Your task to perform on an android device: change alarm snooze length Image 0: 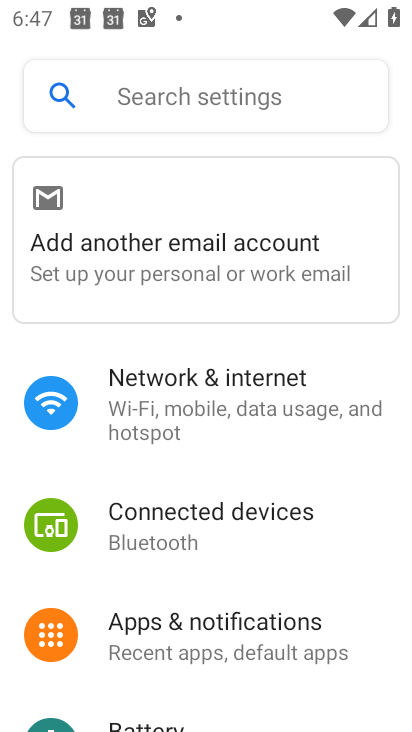
Step 0: press home button
Your task to perform on an android device: change alarm snooze length Image 1: 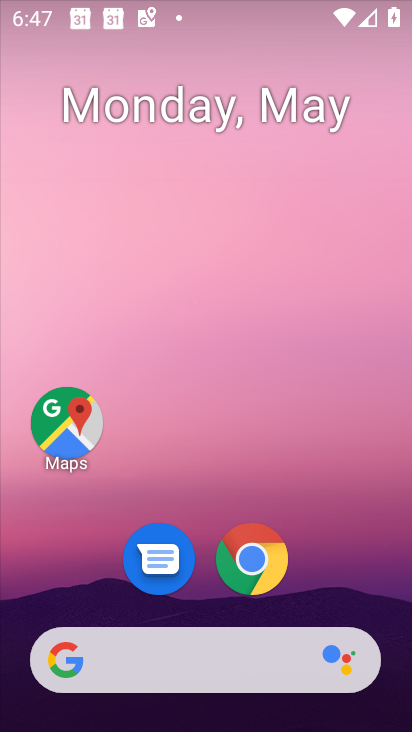
Step 1: drag from (403, 667) to (318, 154)
Your task to perform on an android device: change alarm snooze length Image 2: 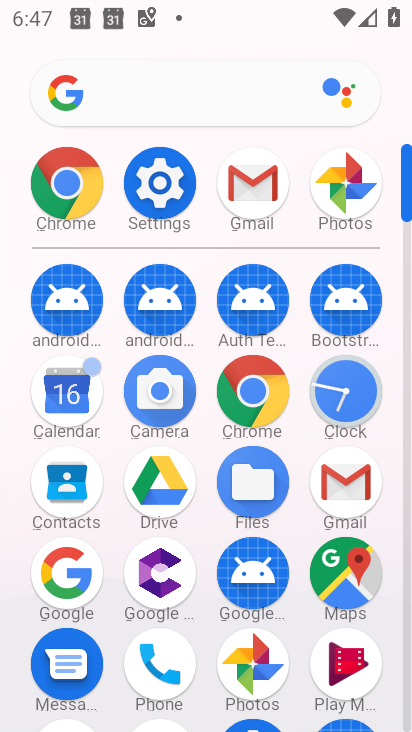
Step 2: click (349, 385)
Your task to perform on an android device: change alarm snooze length Image 3: 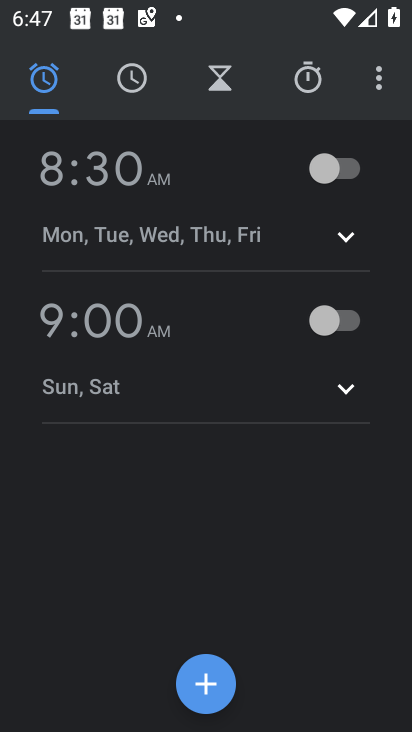
Step 3: click (386, 78)
Your task to perform on an android device: change alarm snooze length Image 4: 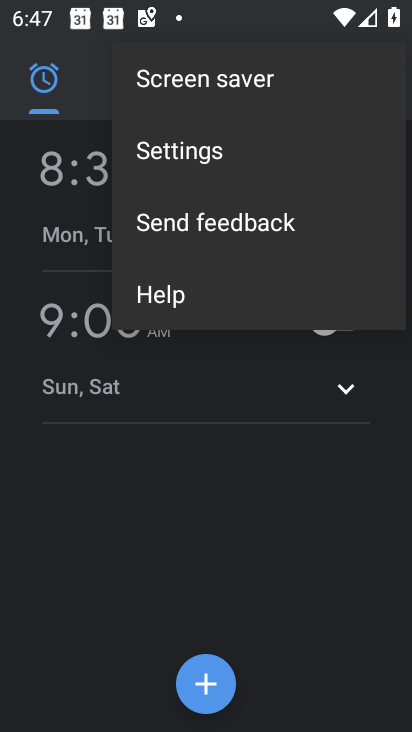
Step 4: click (229, 160)
Your task to perform on an android device: change alarm snooze length Image 5: 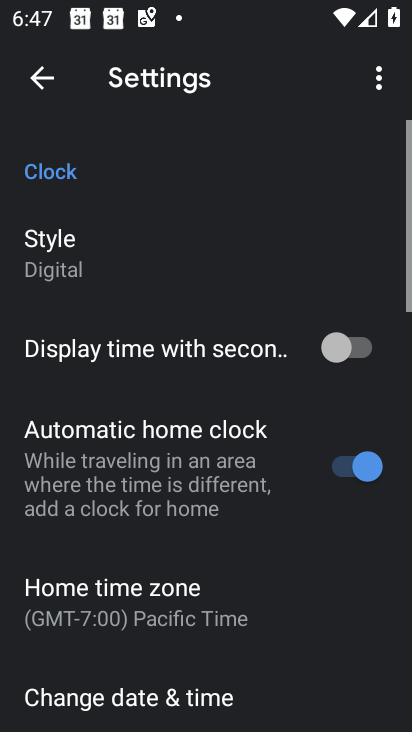
Step 5: drag from (244, 636) to (236, 117)
Your task to perform on an android device: change alarm snooze length Image 6: 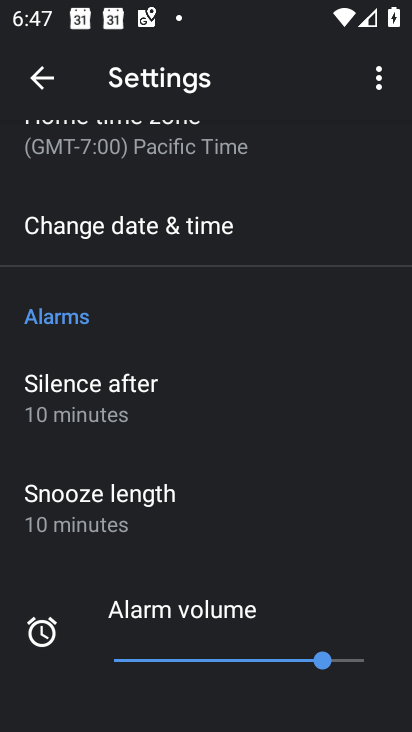
Step 6: click (219, 519)
Your task to perform on an android device: change alarm snooze length Image 7: 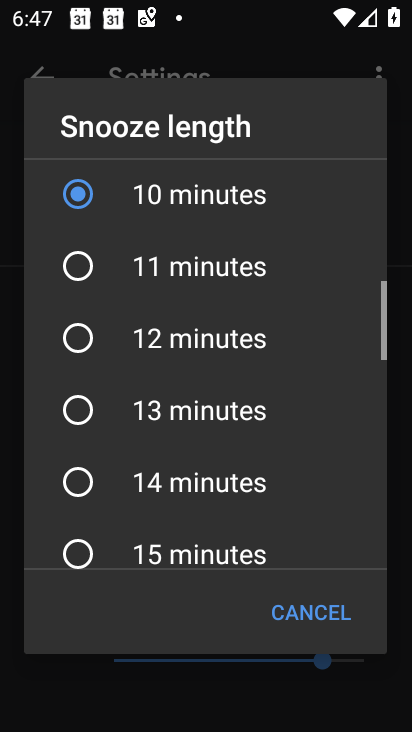
Step 7: click (131, 335)
Your task to perform on an android device: change alarm snooze length Image 8: 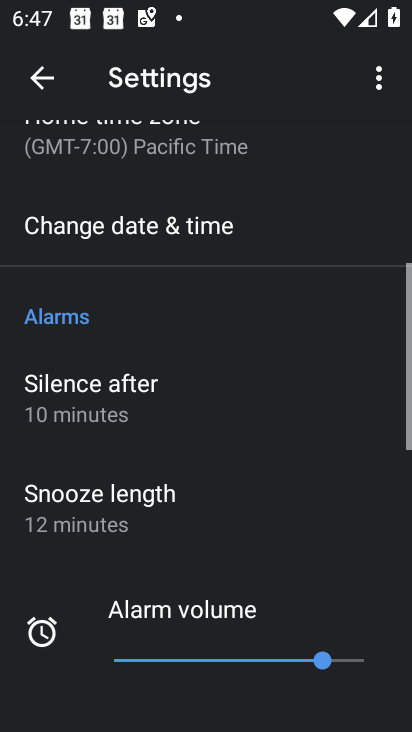
Step 8: task complete